Your task to perform on an android device: Open Google Chrome and click the shortcut for Amazon.com Image 0: 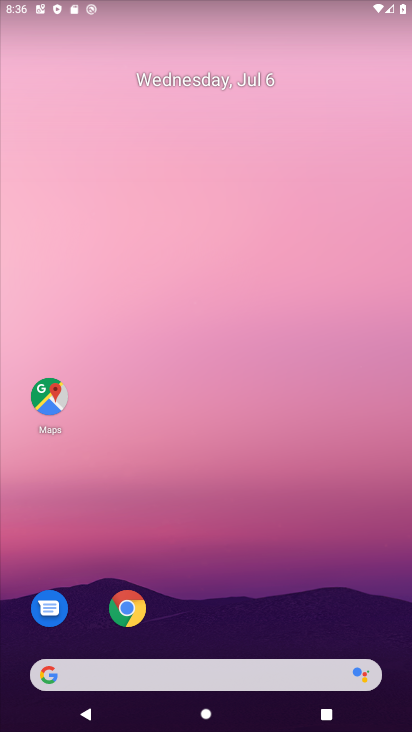
Step 0: drag from (250, 652) to (271, 309)
Your task to perform on an android device: Open Google Chrome and click the shortcut for Amazon.com Image 1: 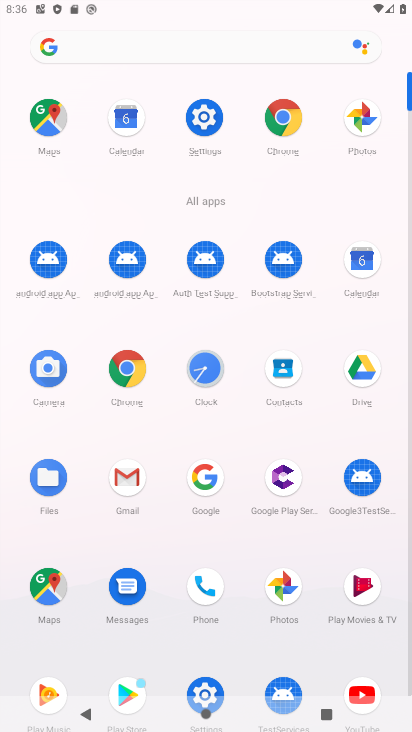
Step 1: click (295, 114)
Your task to perform on an android device: Open Google Chrome and click the shortcut for Amazon.com Image 2: 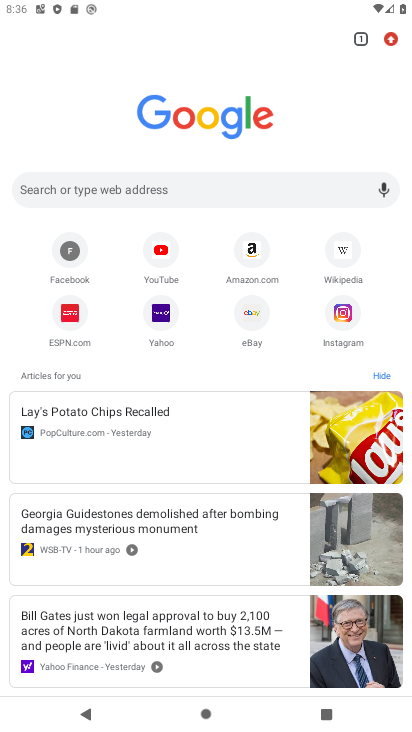
Step 2: click (254, 249)
Your task to perform on an android device: Open Google Chrome and click the shortcut for Amazon.com Image 3: 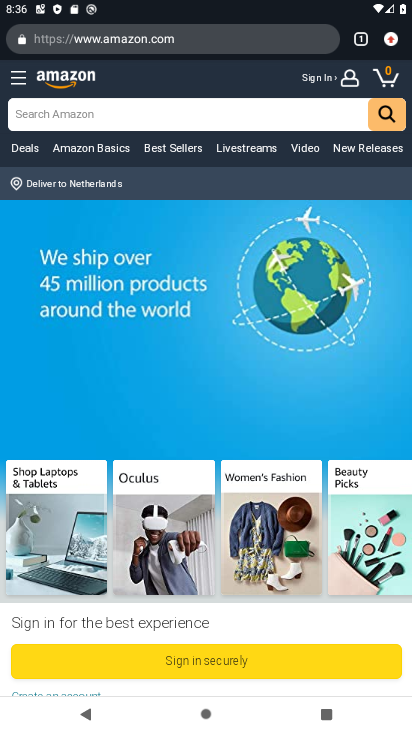
Step 3: task complete